Your task to perform on an android device: delete the emails in spam in the gmail app Image 0: 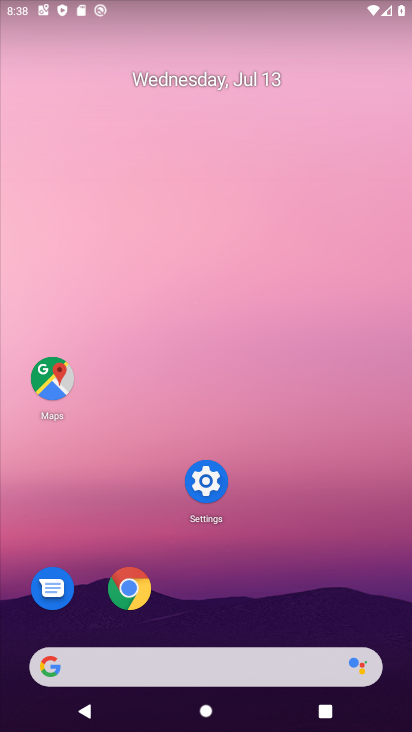
Step 0: drag from (401, 679) to (367, 65)
Your task to perform on an android device: delete the emails in spam in the gmail app Image 1: 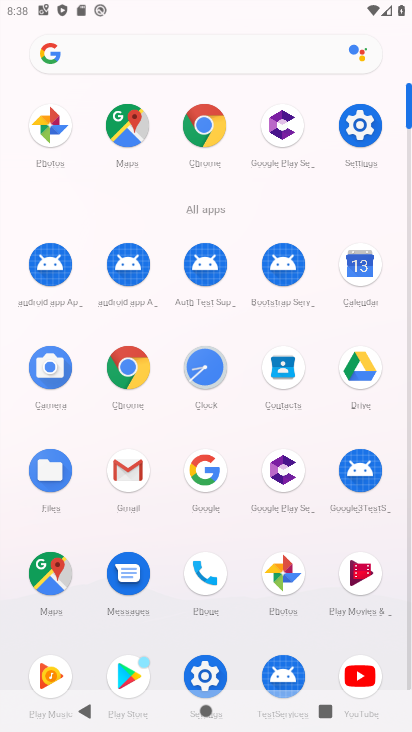
Step 1: drag from (135, 468) to (304, 449)
Your task to perform on an android device: delete the emails in spam in the gmail app Image 2: 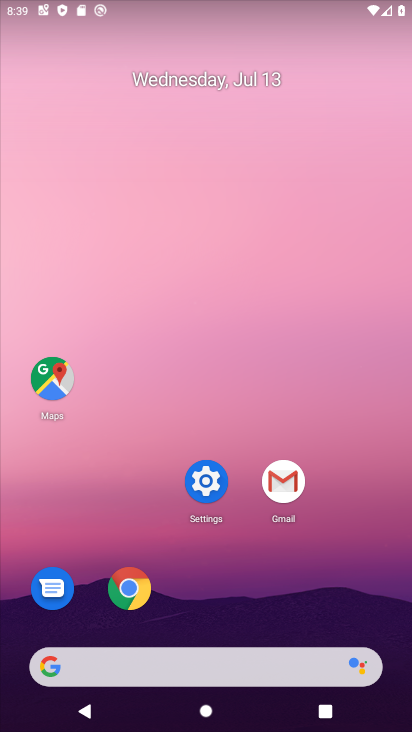
Step 2: click (288, 487)
Your task to perform on an android device: delete the emails in spam in the gmail app Image 3: 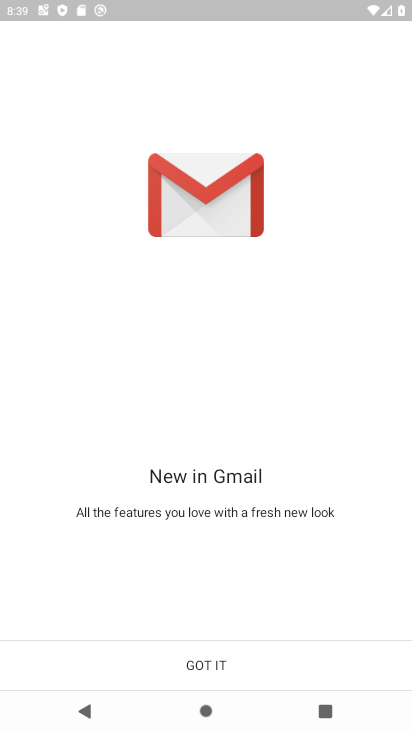
Step 3: click (220, 658)
Your task to perform on an android device: delete the emails in spam in the gmail app Image 4: 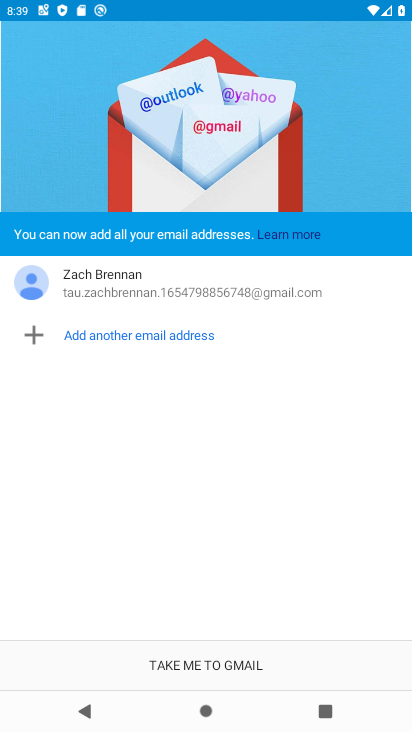
Step 4: click (220, 658)
Your task to perform on an android device: delete the emails in spam in the gmail app Image 5: 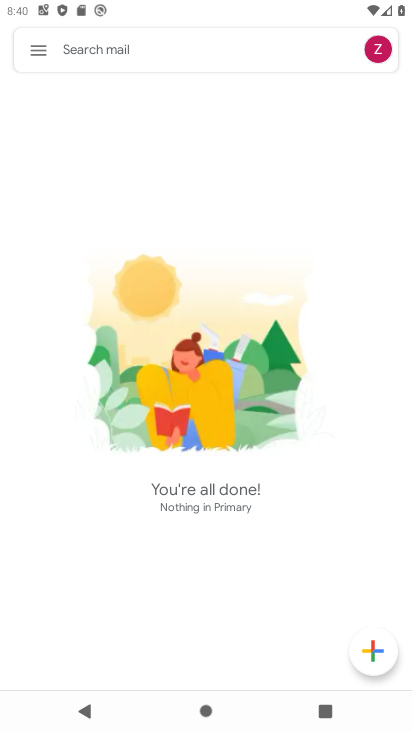
Step 5: task complete